Your task to perform on an android device: Open the map Image 0: 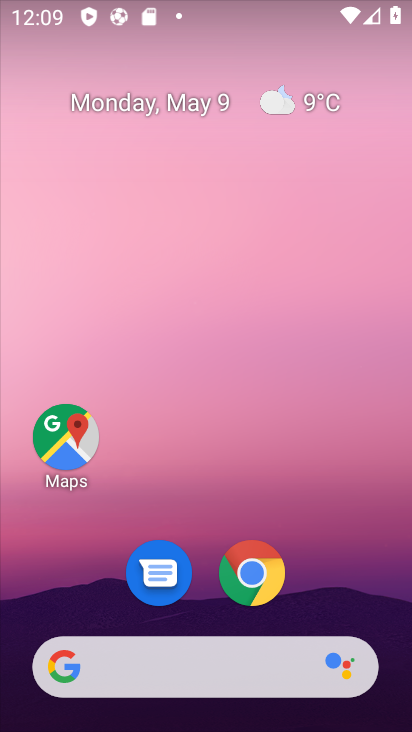
Step 0: click (51, 451)
Your task to perform on an android device: Open the map Image 1: 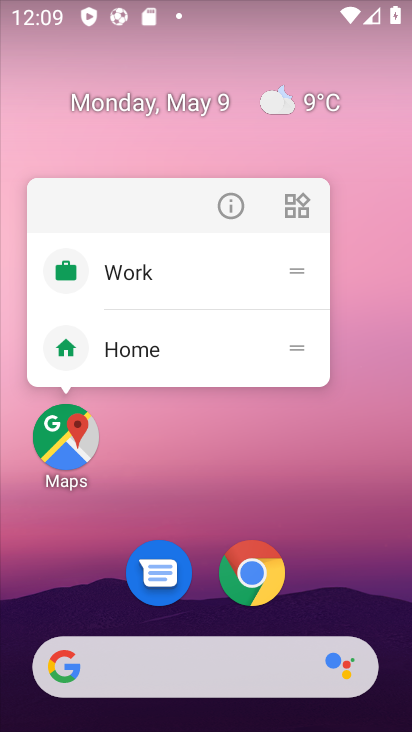
Step 1: click (51, 451)
Your task to perform on an android device: Open the map Image 2: 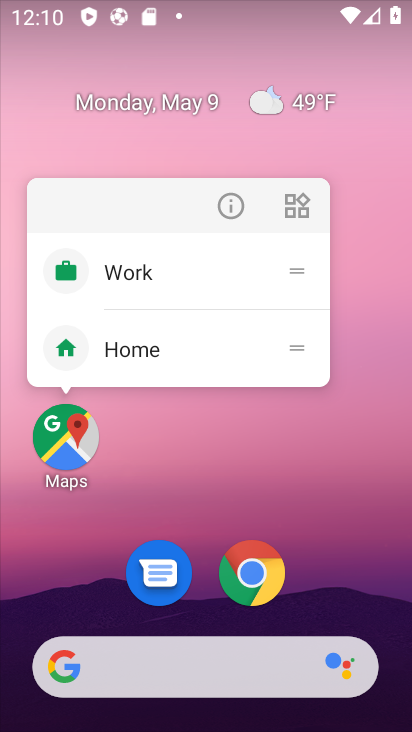
Step 2: click (48, 456)
Your task to perform on an android device: Open the map Image 3: 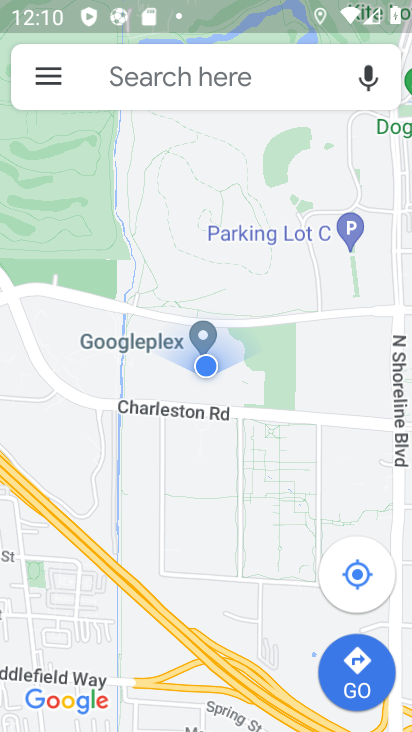
Step 3: task complete